Your task to perform on an android device: Open internet settings Image 0: 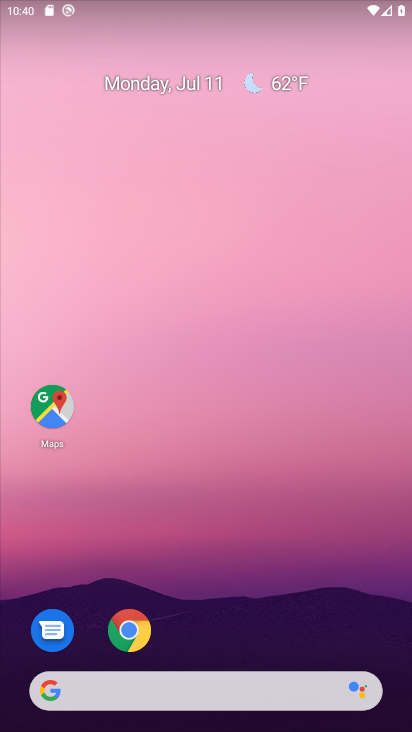
Step 0: drag from (214, 592) to (146, 100)
Your task to perform on an android device: Open internet settings Image 1: 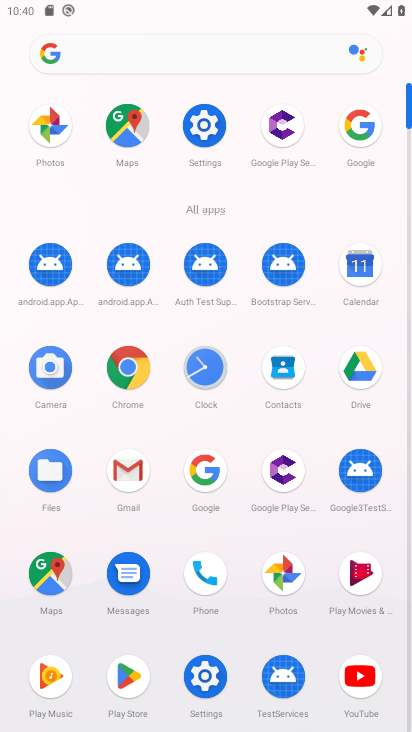
Step 1: click (207, 127)
Your task to perform on an android device: Open internet settings Image 2: 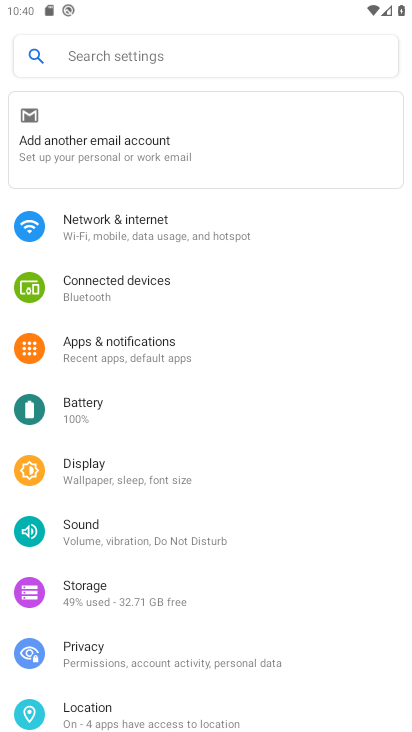
Step 2: click (201, 219)
Your task to perform on an android device: Open internet settings Image 3: 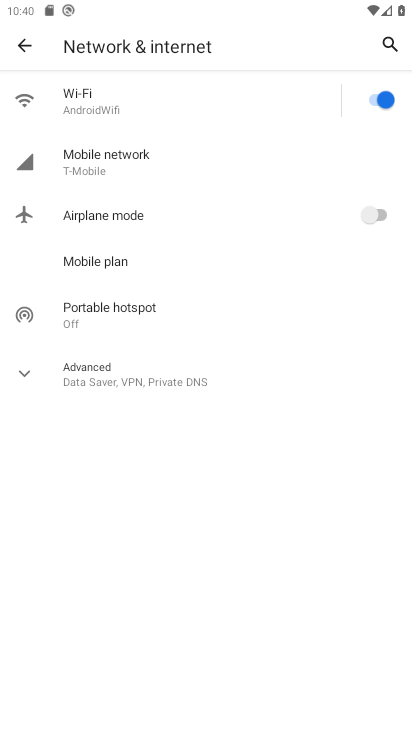
Step 3: task complete